Your task to perform on an android device: Toggle the flashlight Image 0: 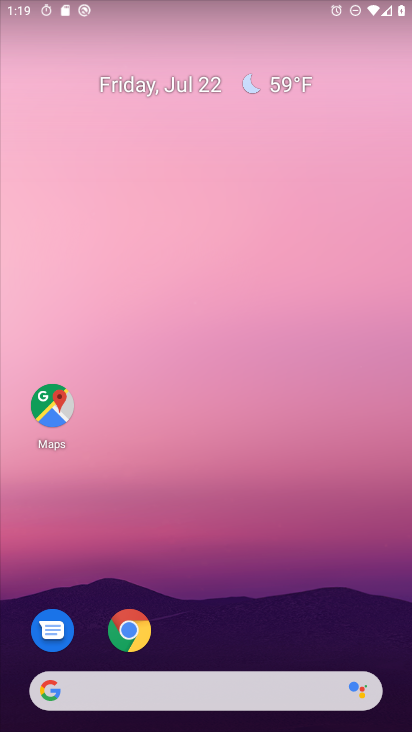
Step 0: press home button
Your task to perform on an android device: Toggle the flashlight Image 1: 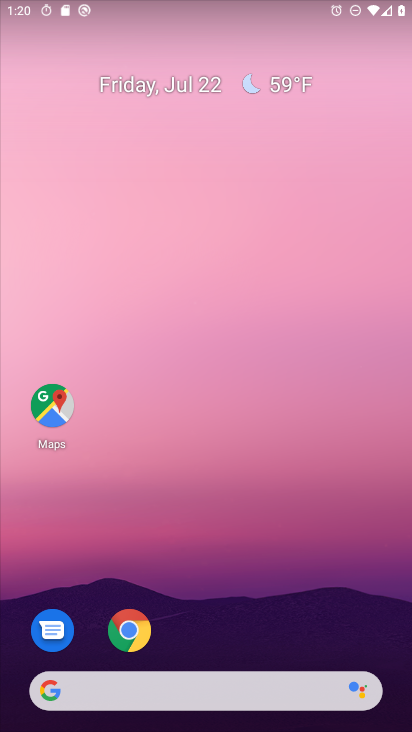
Step 1: task complete